Your task to perform on an android device: Open location settings Image 0: 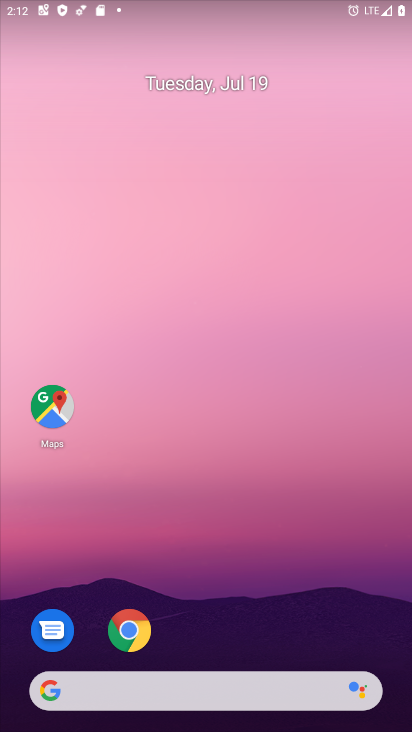
Step 0: press home button
Your task to perform on an android device: Open location settings Image 1: 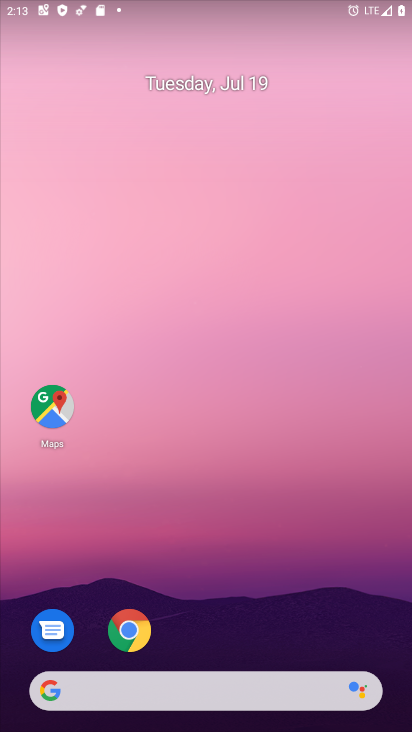
Step 1: drag from (214, 647) to (269, 142)
Your task to perform on an android device: Open location settings Image 2: 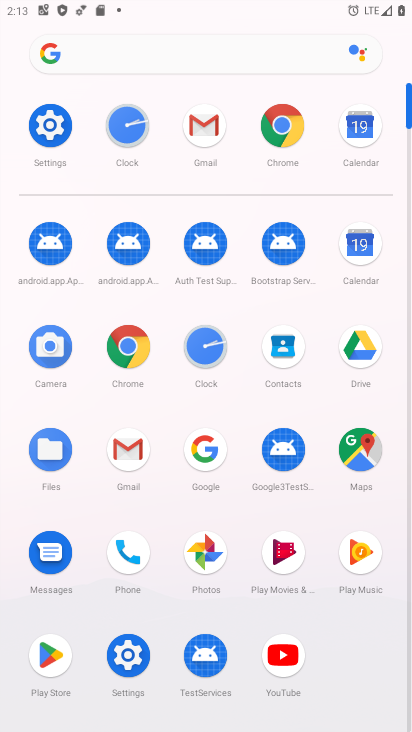
Step 2: click (46, 120)
Your task to perform on an android device: Open location settings Image 3: 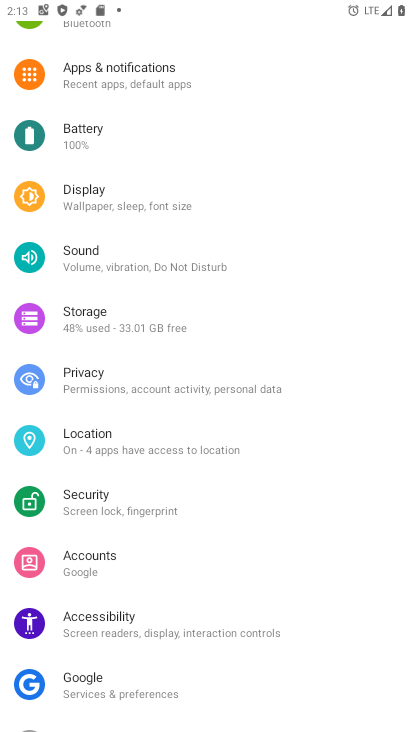
Step 3: click (121, 430)
Your task to perform on an android device: Open location settings Image 4: 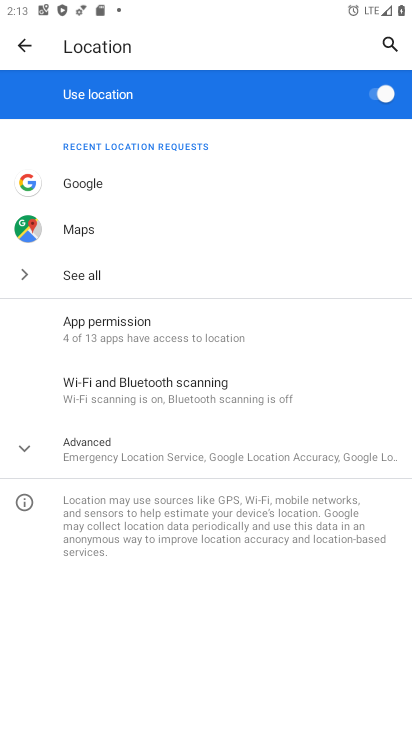
Step 4: click (18, 447)
Your task to perform on an android device: Open location settings Image 5: 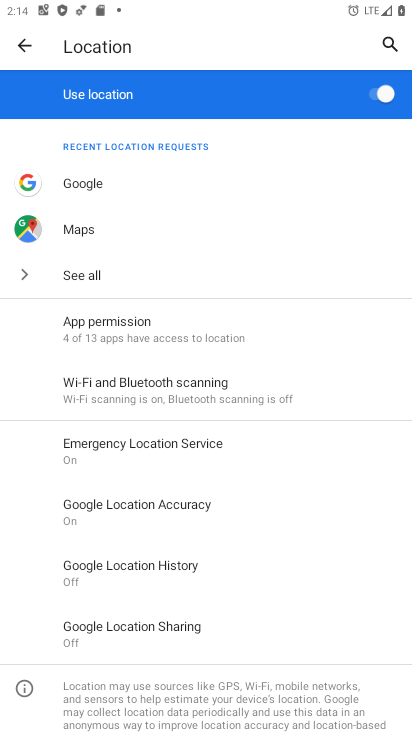
Step 5: task complete